Your task to perform on an android device: find snoozed emails in the gmail app Image 0: 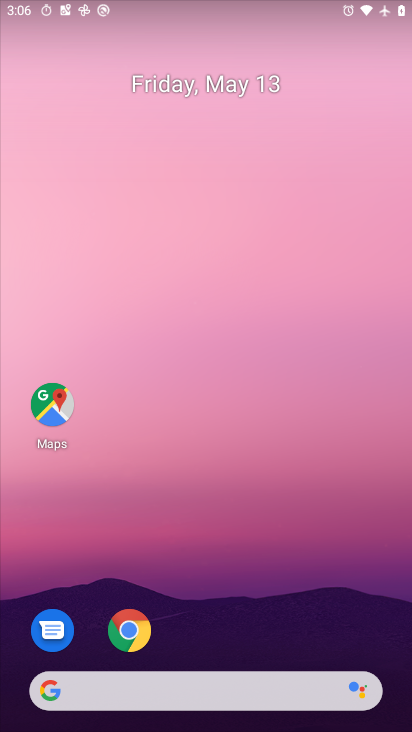
Step 0: drag from (245, 516) to (275, 210)
Your task to perform on an android device: find snoozed emails in the gmail app Image 1: 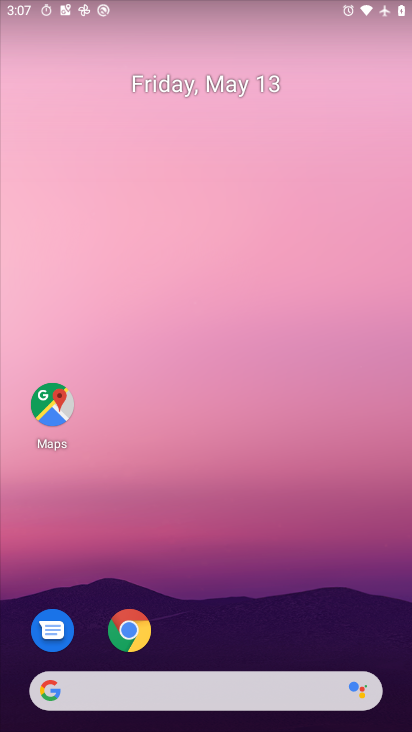
Step 1: drag from (208, 497) to (283, 112)
Your task to perform on an android device: find snoozed emails in the gmail app Image 2: 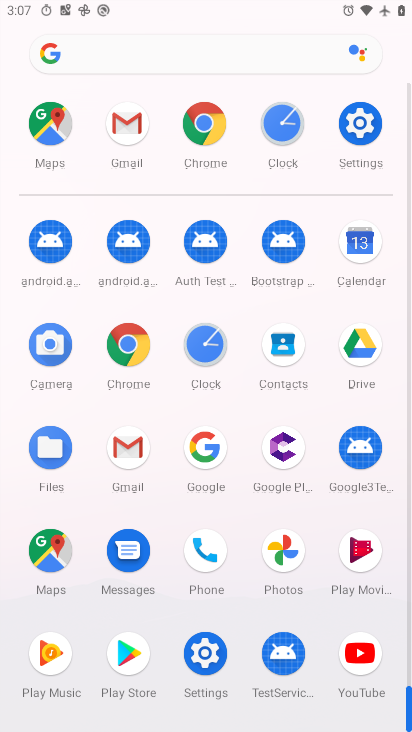
Step 2: click (142, 447)
Your task to perform on an android device: find snoozed emails in the gmail app Image 3: 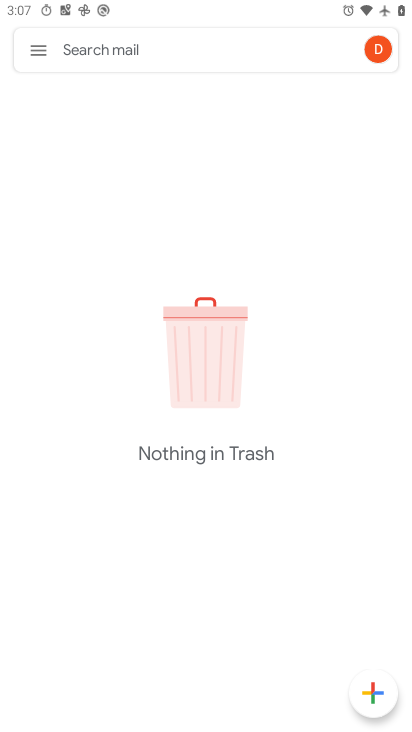
Step 3: click (43, 43)
Your task to perform on an android device: find snoozed emails in the gmail app Image 4: 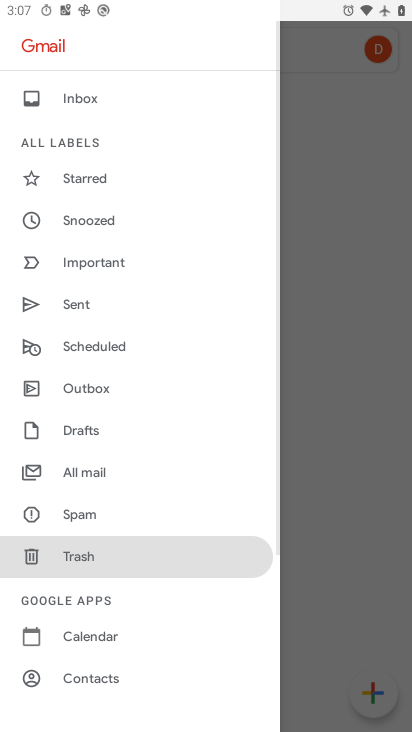
Step 4: click (107, 229)
Your task to perform on an android device: find snoozed emails in the gmail app Image 5: 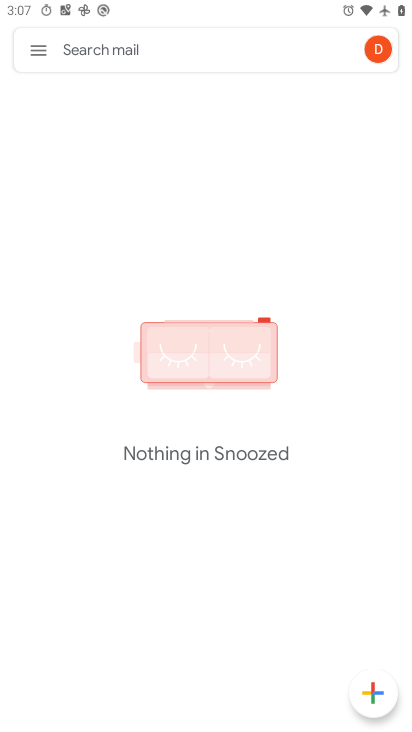
Step 5: task complete